Your task to perform on an android device: Turn off the flashlight Image 0: 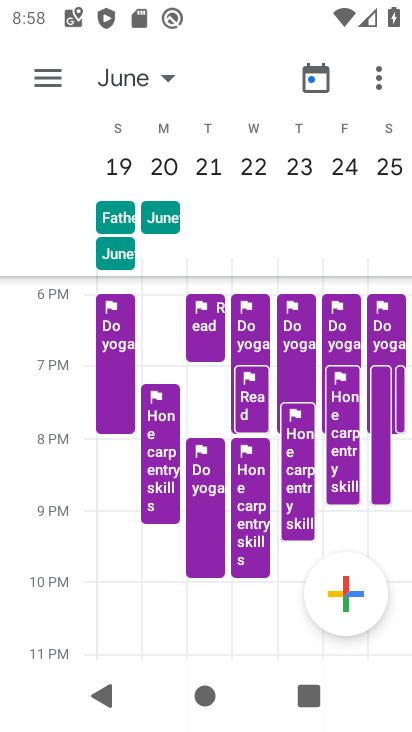
Step 0: press home button
Your task to perform on an android device: Turn off the flashlight Image 1: 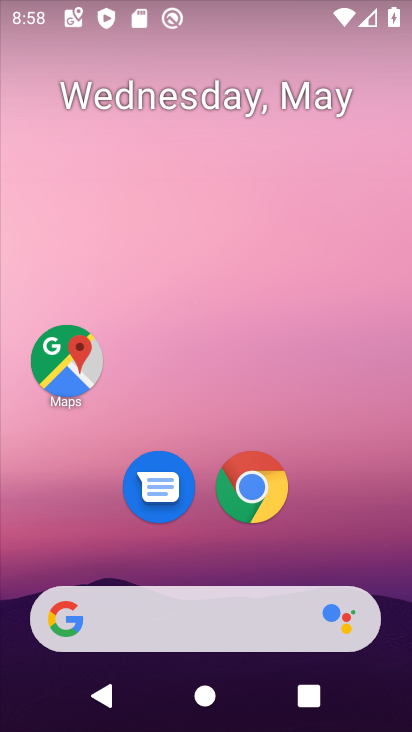
Step 1: drag from (338, 516) to (211, 113)
Your task to perform on an android device: Turn off the flashlight Image 2: 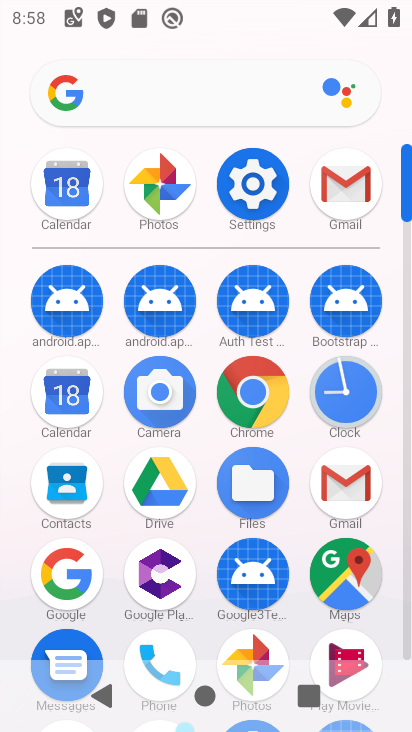
Step 2: click (261, 183)
Your task to perform on an android device: Turn off the flashlight Image 3: 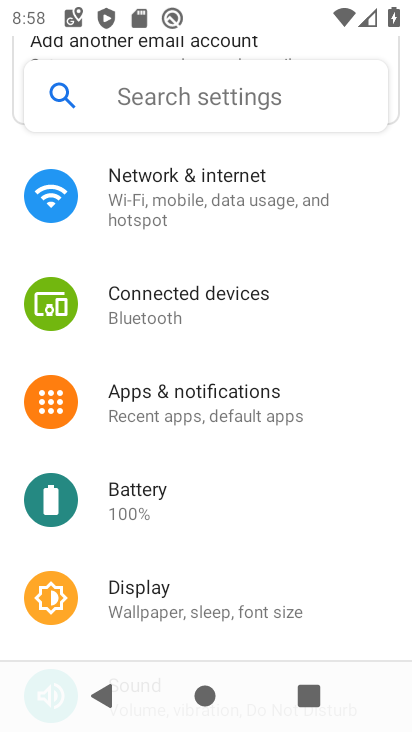
Step 3: drag from (216, 480) to (175, 226)
Your task to perform on an android device: Turn off the flashlight Image 4: 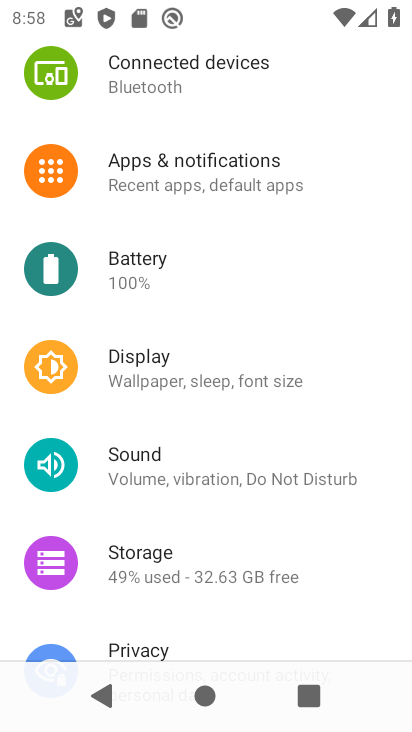
Step 4: click (136, 365)
Your task to perform on an android device: Turn off the flashlight Image 5: 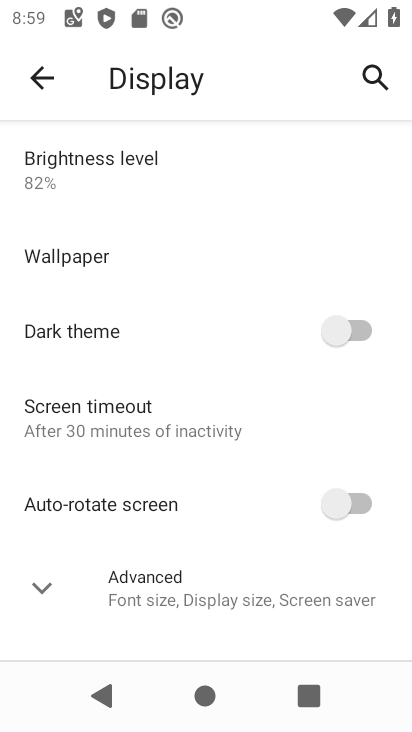
Step 5: task complete